Your task to perform on an android device: What's on my calendar tomorrow? Image 0: 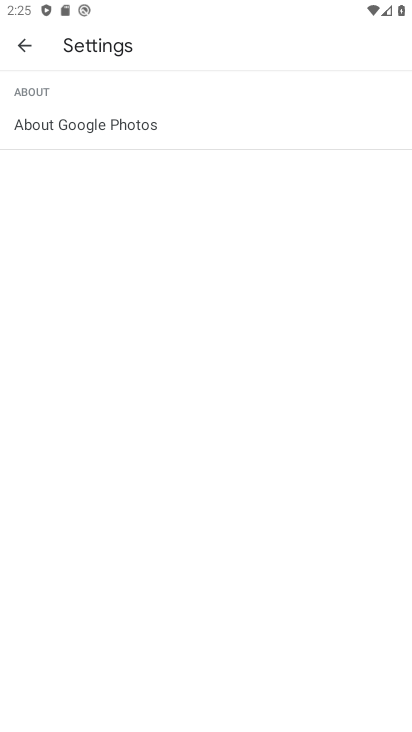
Step 0: press home button
Your task to perform on an android device: What's on my calendar tomorrow? Image 1: 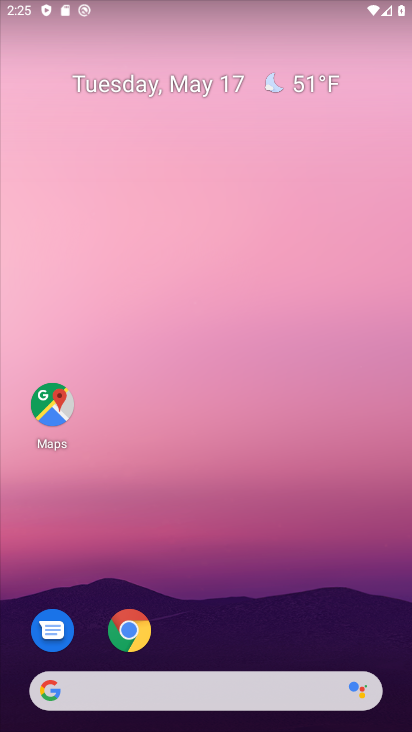
Step 1: drag from (227, 654) to (216, 135)
Your task to perform on an android device: What's on my calendar tomorrow? Image 2: 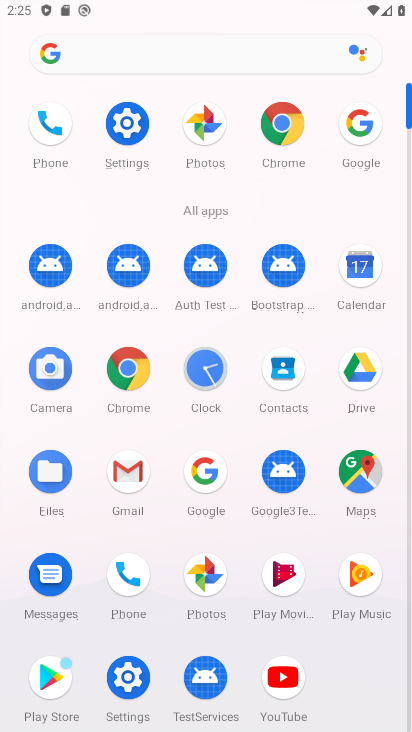
Step 2: click (358, 295)
Your task to perform on an android device: What's on my calendar tomorrow? Image 3: 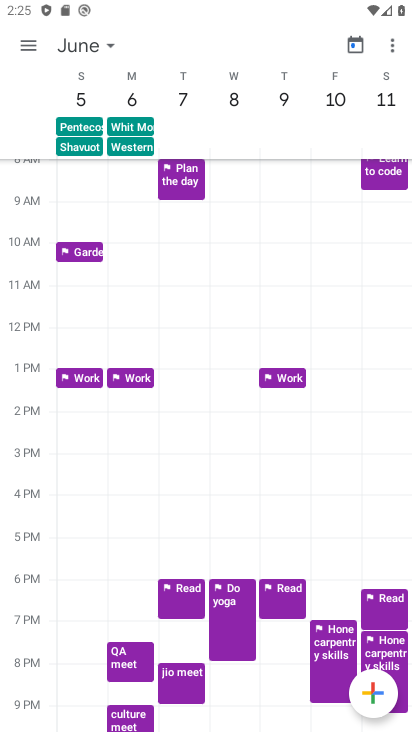
Step 3: click (77, 48)
Your task to perform on an android device: What's on my calendar tomorrow? Image 4: 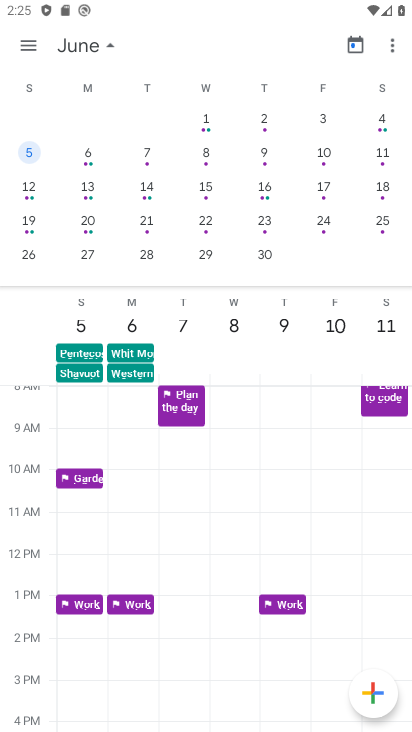
Step 4: drag from (103, 169) to (405, 168)
Your task to perform on an android device: What's on my calendar tomorrow? Image 5: 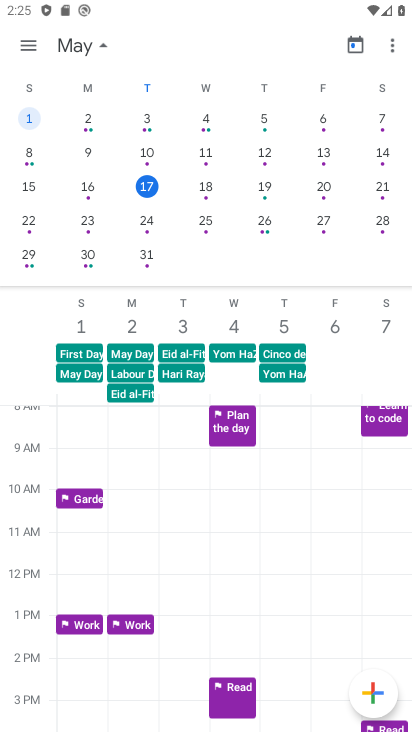
Step 5: click (210, 186)
Your task to perform on an android device: What's on my calendar tomorrow? Image 6: 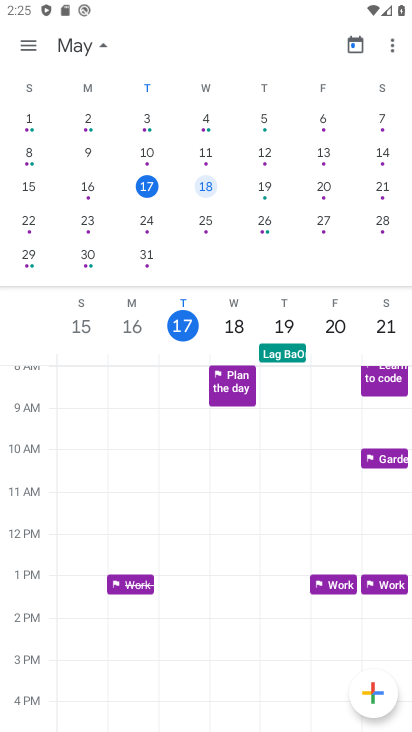
Step 6: click (34, 46)
Your task to perform on an android device: What's on my calendar tomorrow? Image 7: 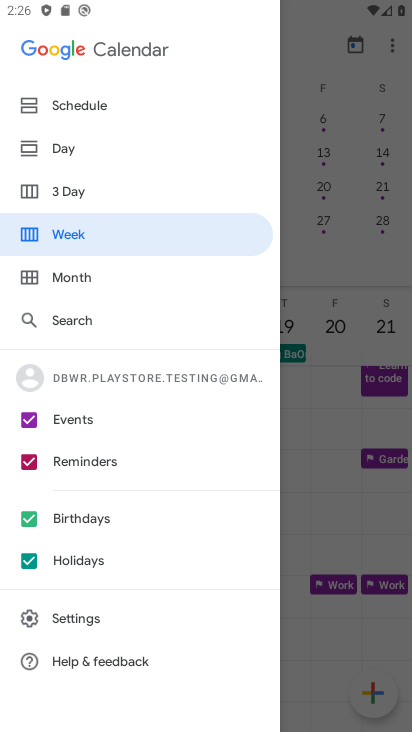
Step 7: click (98, 109)
Your task to perform on an android device: What's on my calendar tomorrow? Image 8: 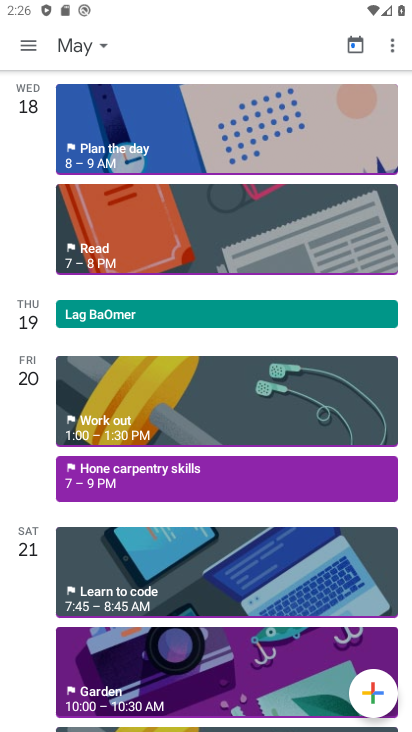
Step 8: task complete